Your task to perform on an android device: see creations saved in the google photos Image 0: 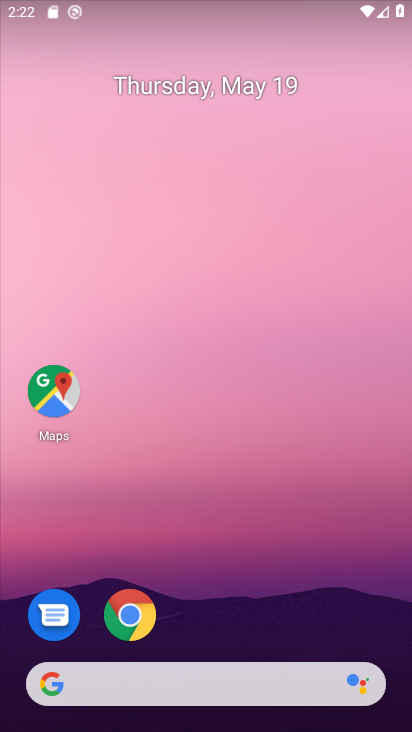
Step 0: drag from (243, 512) to (221, 23)
Your task to perform on an android device: see creations saved in the google photos Image 1: 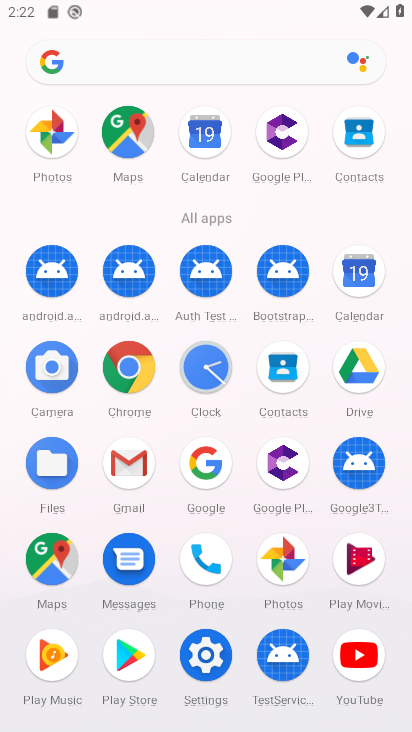
Step 1: click (283, 554)
Your task to perform on an android device: see creations saved in the google photos Image 2: 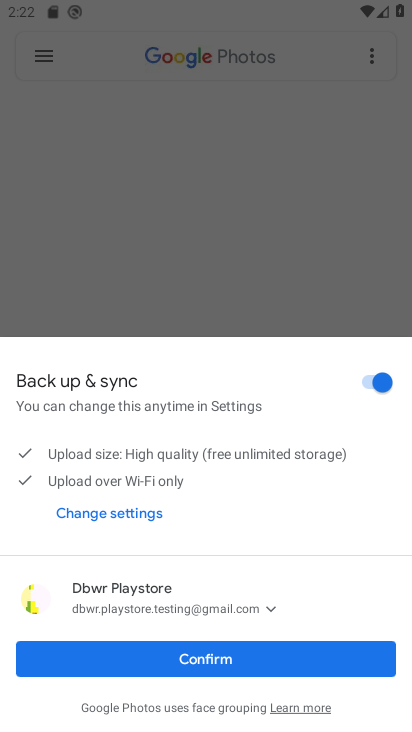
Step 2: click (220, 660)
Your task to perform on an android device: see creations saved in the google photos Image 3: 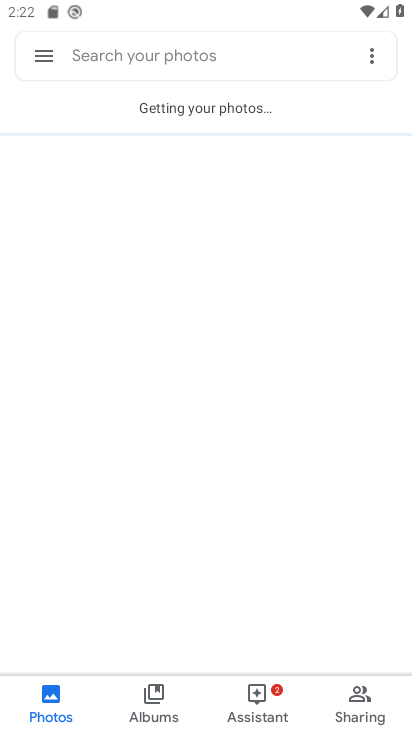
Step 3: task complete